Your task to perform on an android device: turn on priority inbox in the gmail app Image 0: 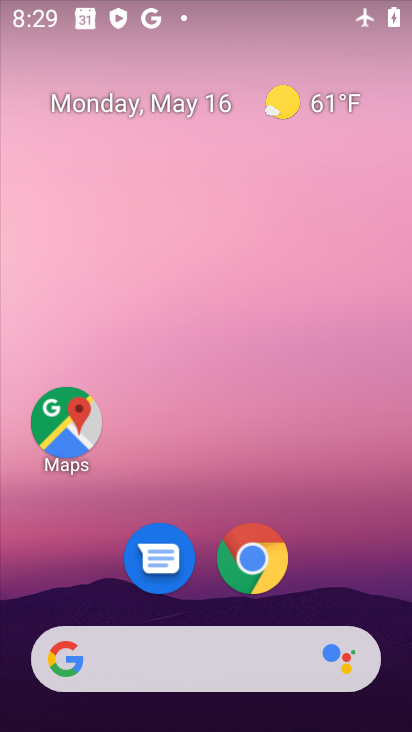
Step 0: drag from (215, 550) to (260, 100)
Your task to perform on an android device: turn on priority inbox in the gmail app Image 1: 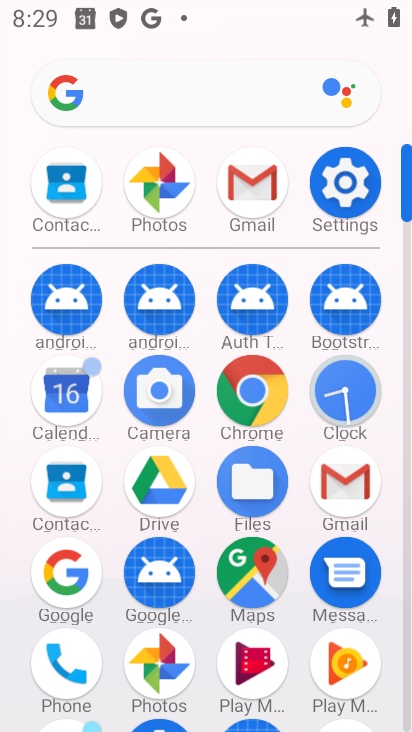
Step 1: click (247, 183)
Your task to perform on an android device: turn on priority inbox in the gmail app Image 2: 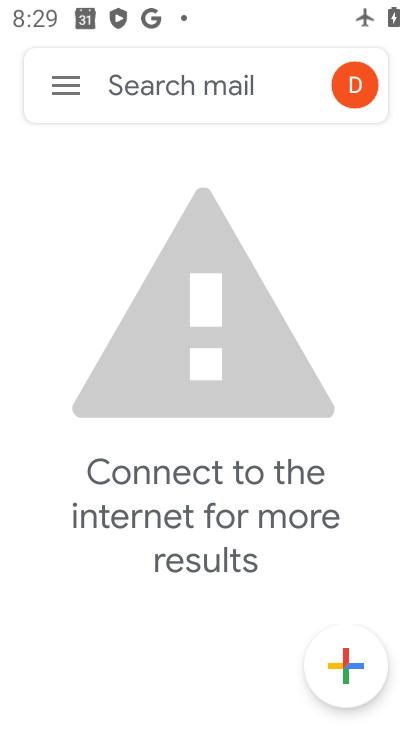
Step 2: drag from (326, 9) to (256, 623)
Your task to perform on an android device: turn on priority inbox in the gmail app Image 3: 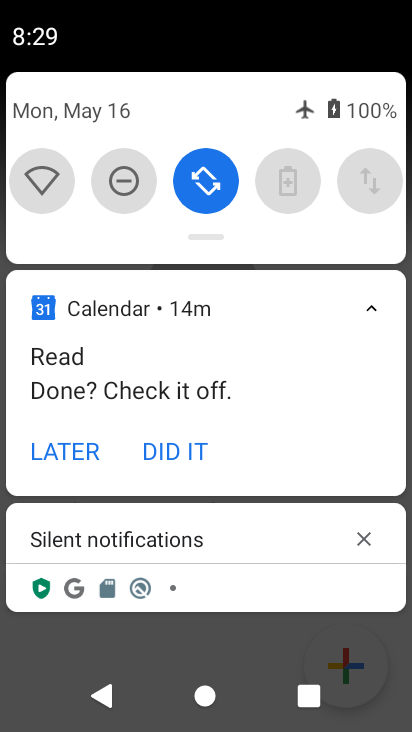
Step 3: drag from (212, 217) to (196, 566)
Your task to perform on an android device: turn on priority inbox in the gmail app Image 4: 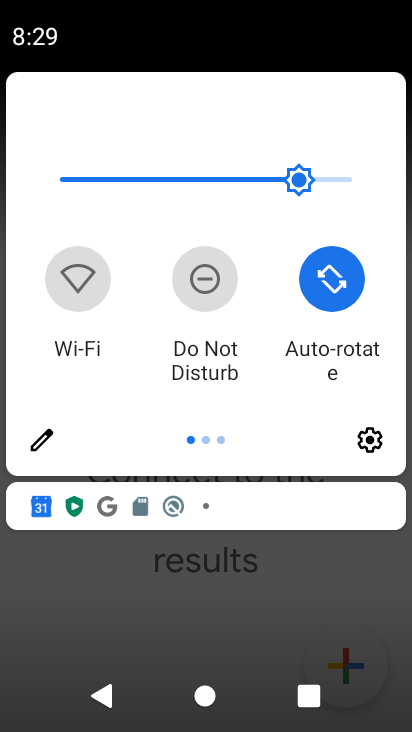
Step 4: drag from (349, 291) to (32, 290)
Your task to perform on an android device: turn on priority inbox in the gmail app Image 5: 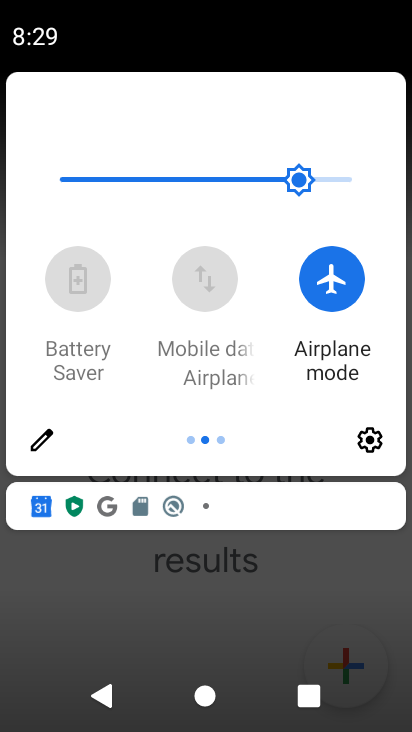
Step 5: click (333, 285)
Your task to perform on an android device: turn on priority inbox in the gmail app Image 6: 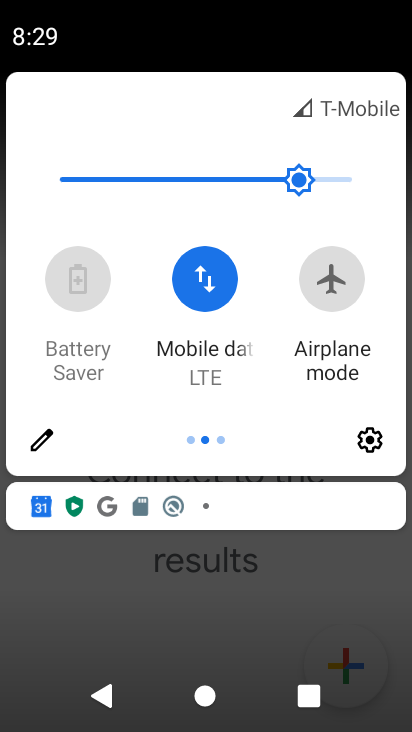
Step 6: click (159, 645)
Your task to perform on an android device: turn on priority inbox in the gmail app Image 7: 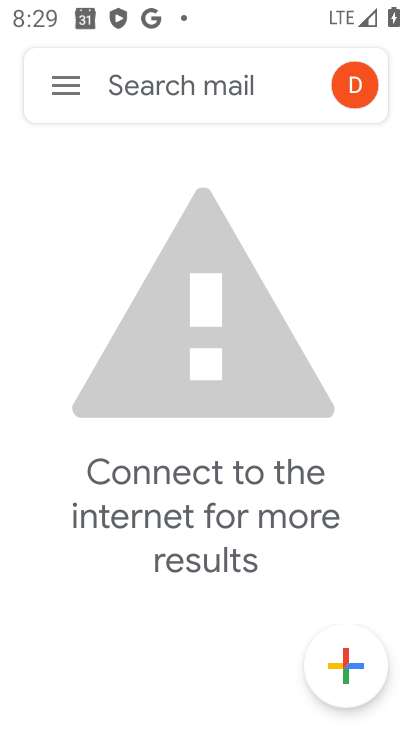
Step 7: click (65, 70)
Your task to perform on an android device: turn on priority inbox in the gmail app Image 8: 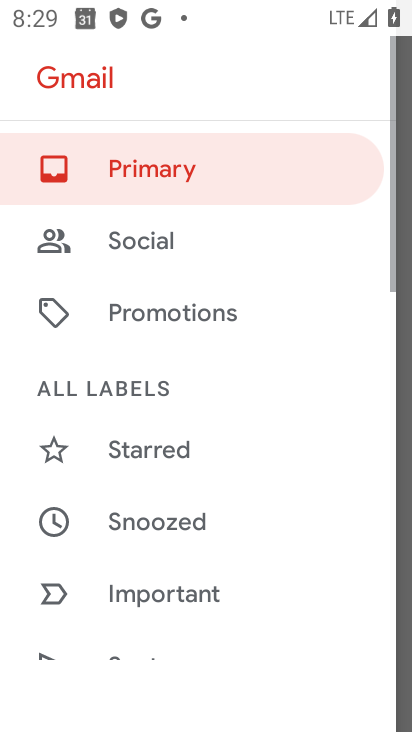
Step 8: drag from (147, 585) to (200, 163)
Your task to perform on an android device: turn on priority inbox in the gmail app Image 9: 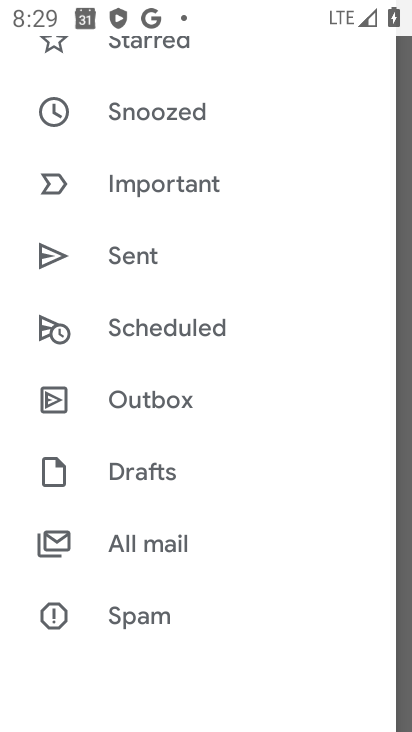
Step 9: drag from (161, 598) to (232, 35)
Your task to perform on an android device: turn on priority inbox in the gmail app Image 10: 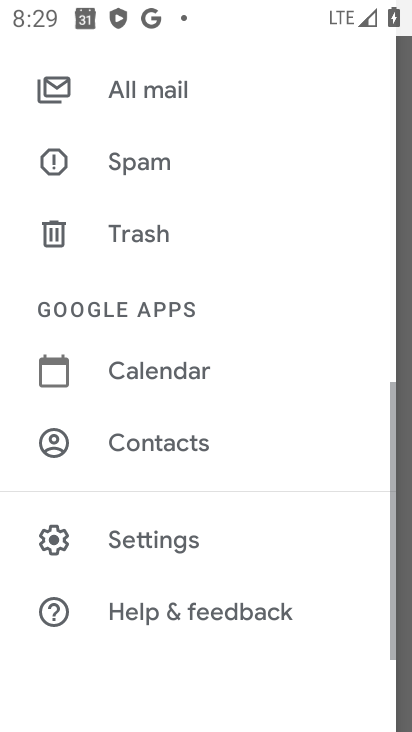
Step 10: click (158, 544)
Your task to perform on an android device: turn on priority inbox in the gmail app Image 11: 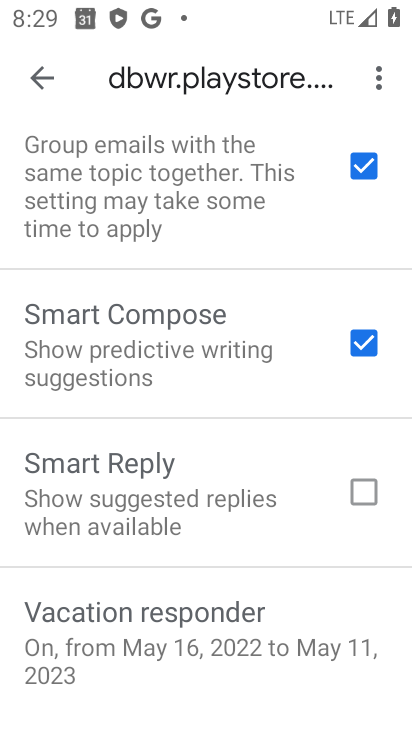
Step 11: drag from (226, 189) to (198, 724)
Your task to perform on an android device: turn on priority inbox in the gmail app Image 12: 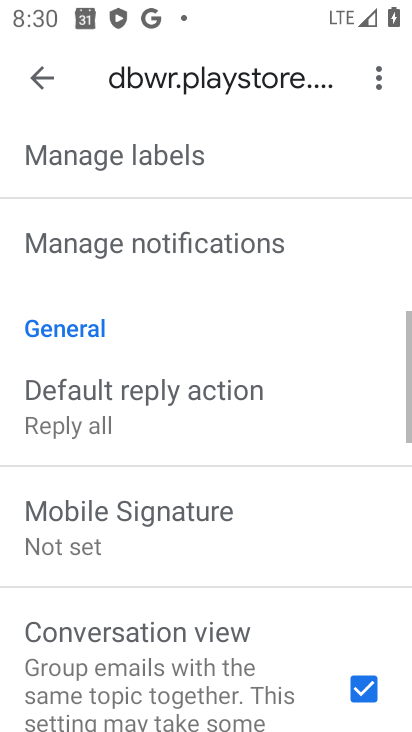
Step 12: drag from (228, 265) to (166, 718)
Your task to perform on an android device: turn on priority inbox in the gmail app Image 13: 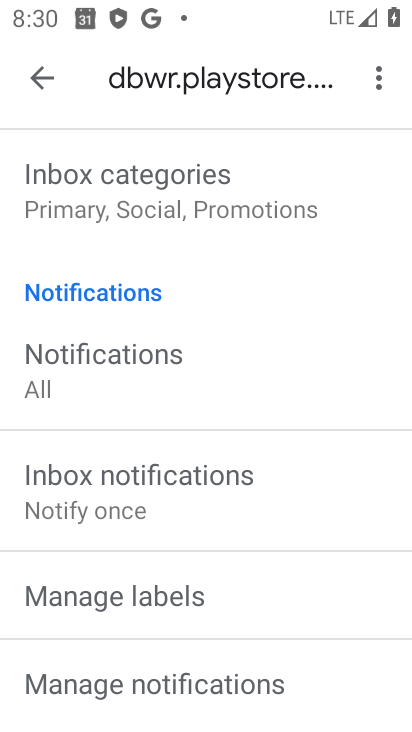
Step 13: drag from (176, 343) to (155, 730)
Your task to perform on an android device: turn on priority inbox in the gmail app Image 14: 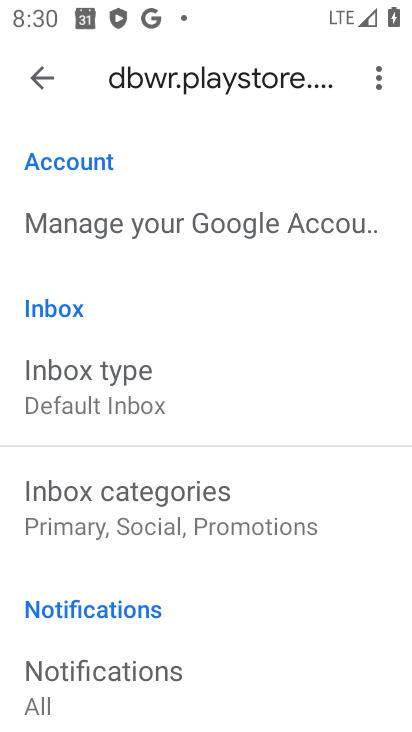
Step 14: click (111, 403)
Your task to perform on an android device: turn on priority inbox in the gmail app Image 15: 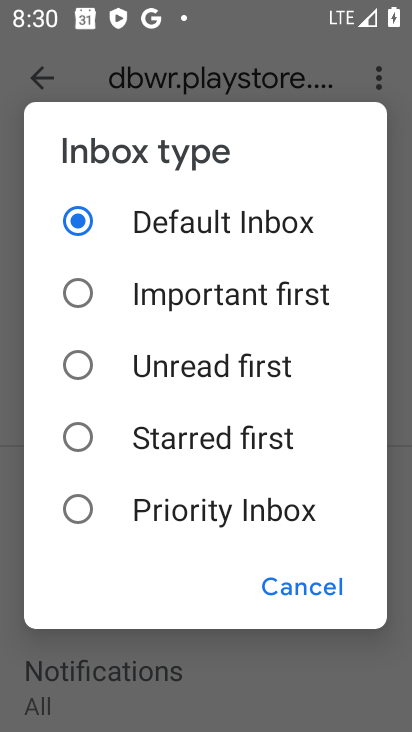
Step 15: click (68, 515)
Your task to perform on an android device: turn on priority inbox in the gmail app Image 16: 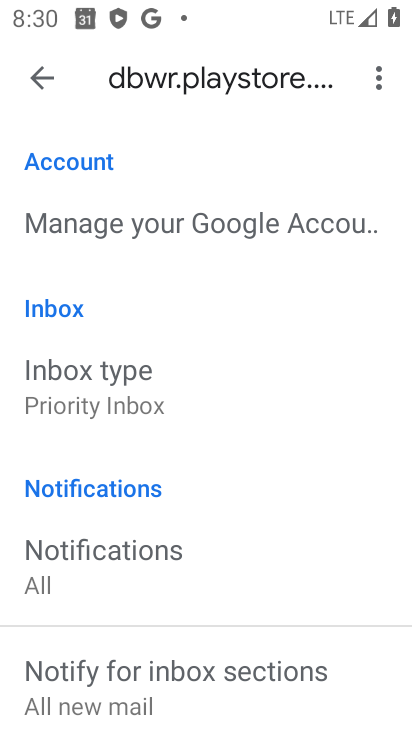
Step 16: task complete